Your task to perform on an android device: change the clock style Image 0: 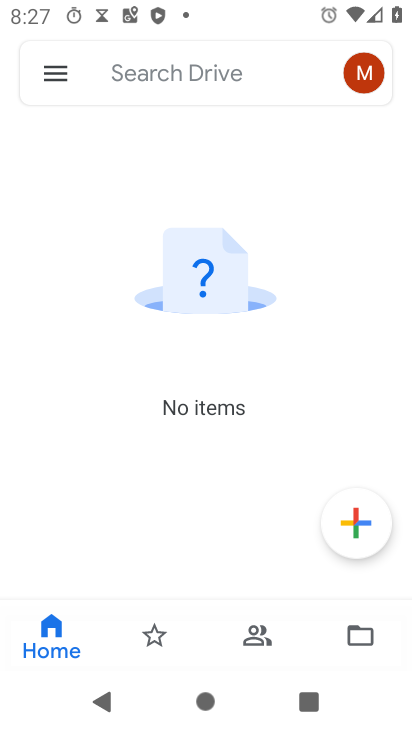
Step 0: press home button
Your task to perform on an android device: change the clock style Image 1: 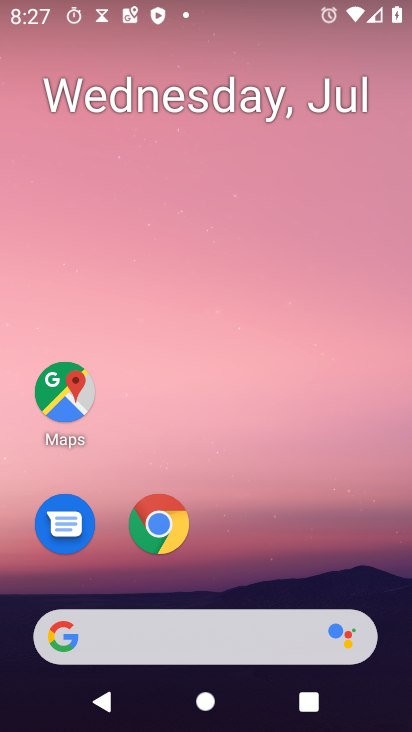
Step 1: drag from (153, 634) to (327, 0)
Your task to perform on an android device: change the clock style Image 2: 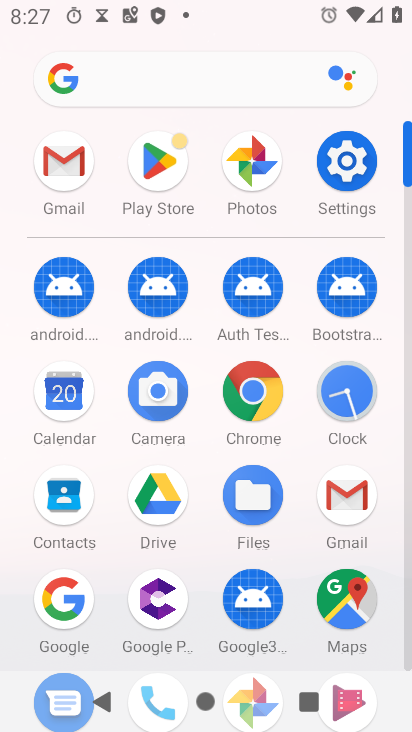
Step 2: click (352, 403)
Your task to perform on an android device: change the clock style Image 3: 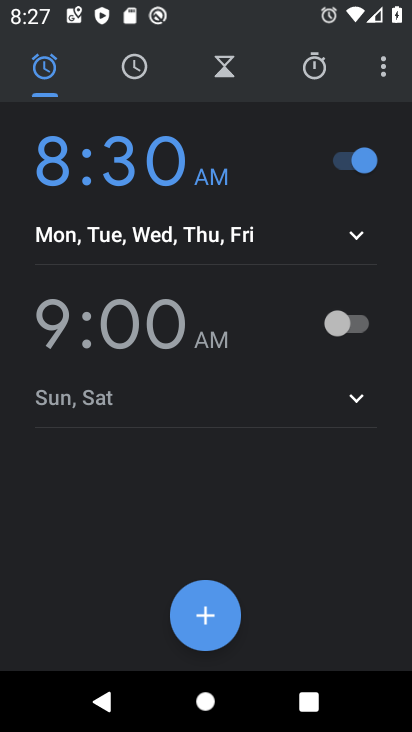
Step 3: click (382, 67)
Your task to perform on an android device: change the clock style Image 4: 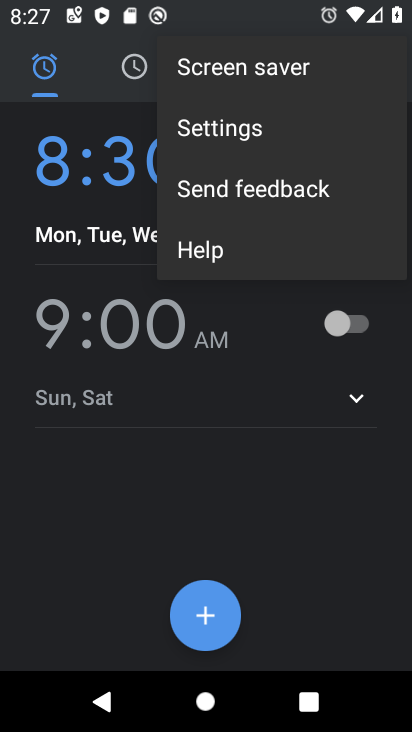
Step 4: click (247, 131)
Your task to perform on an android device: change the clock style Image 5: 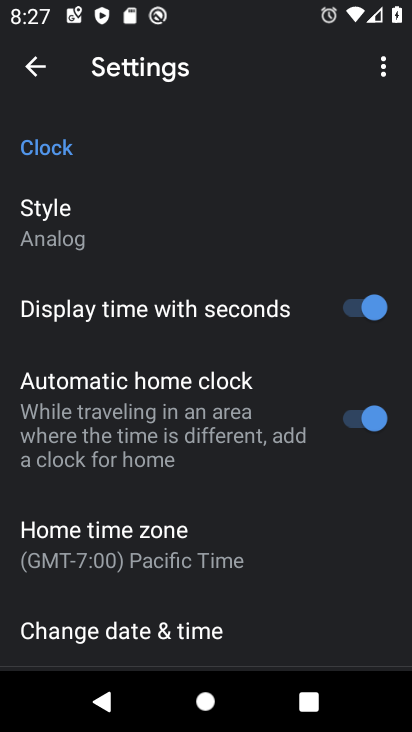
Step 5: click (52, 230)
Your task to perform on an android device: change the clock style Image 6: 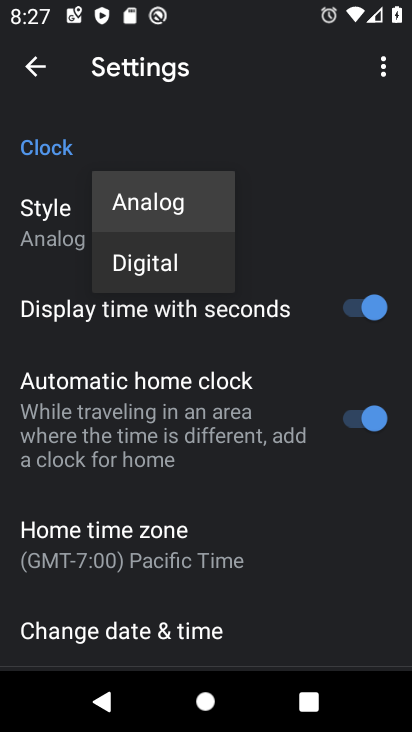
Step 6: click (159, 257)
Your task to perform on an android device: change the clock style Image 7: 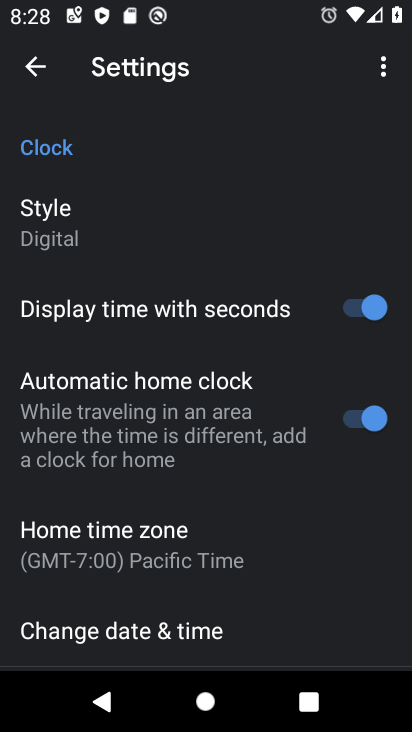
Step 7: task complete